Your task to perform on an android device: open chrome privacy settings Image 0: 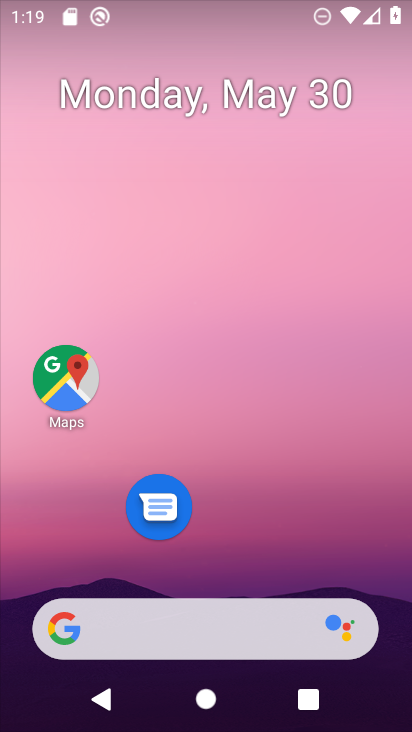
Step 0: drag from (217, 551) to (87, 59)
Your task to perform on an android device: open chrome privacy settings Image 1: 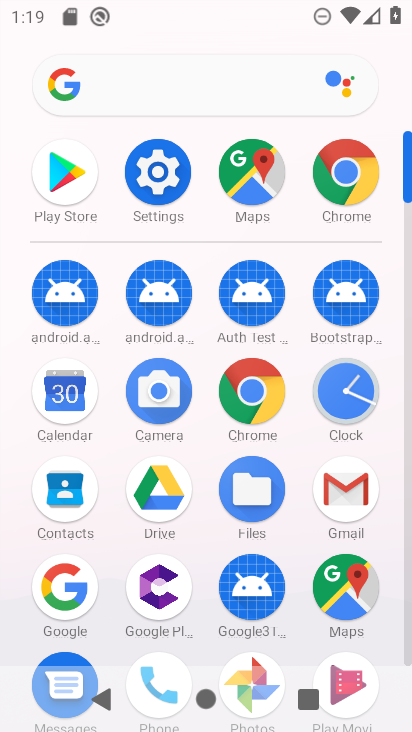
Step 1: click (407, 564)
Your task to perform on an android device: open chrome privacy settings Image 2: 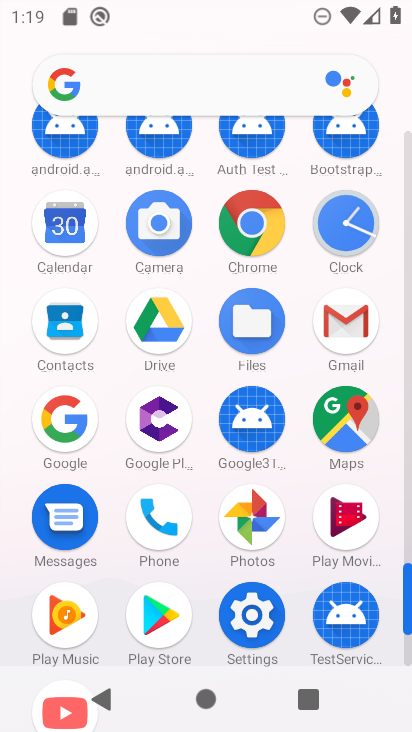
Step 2: drag from (407, 564) to (411, 727)
Your task to perform on an android device: open chrome privacy settings Image 3: 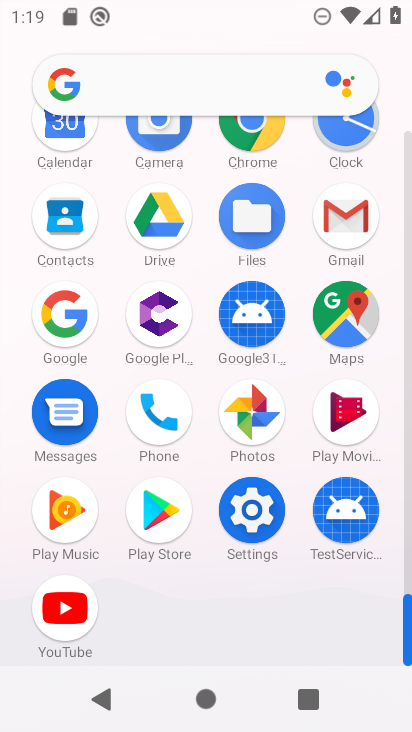
Step 3: click (254, 144)
Your task to perform on an android device: open chrome privacy settings Image 4: 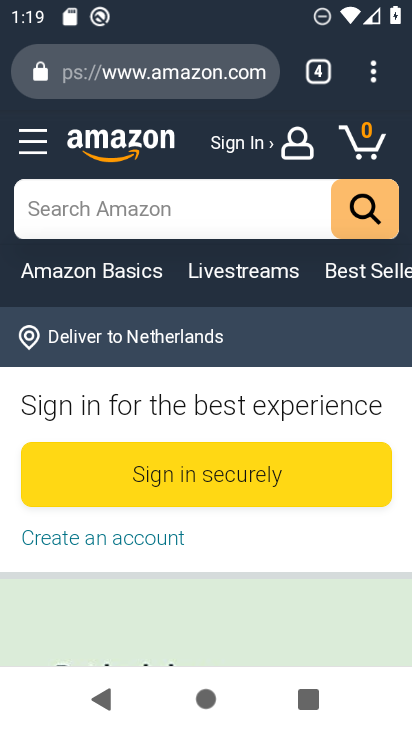
Step 4: drag from (385, 79) to (120, 480)
Your task to perform on an android device: open chrome privacy settings Image 5: 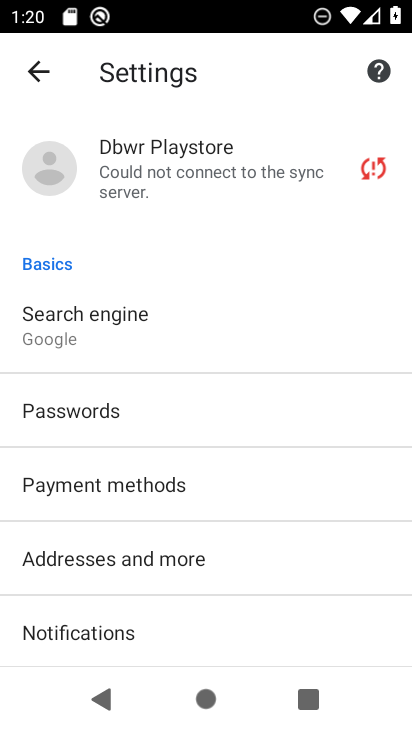
Step 5: drag from (158, 596) to (264, 115)
Your task to perform on an android device: open chrome privacy settings Image 6: 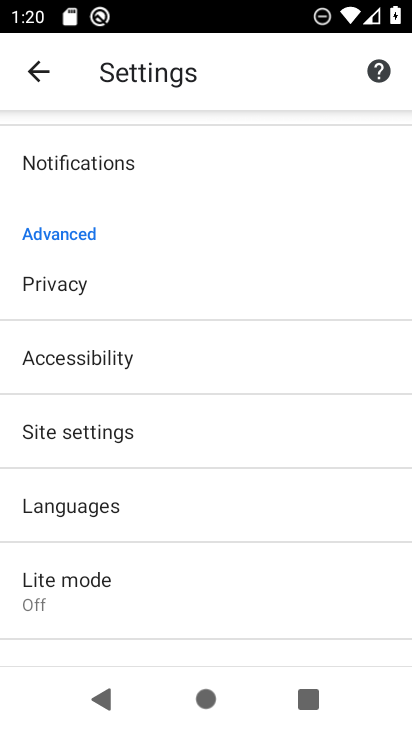
Step 6: click (220, 296)
Your task to perform on an android device: open chrome privacy settings Image 7: 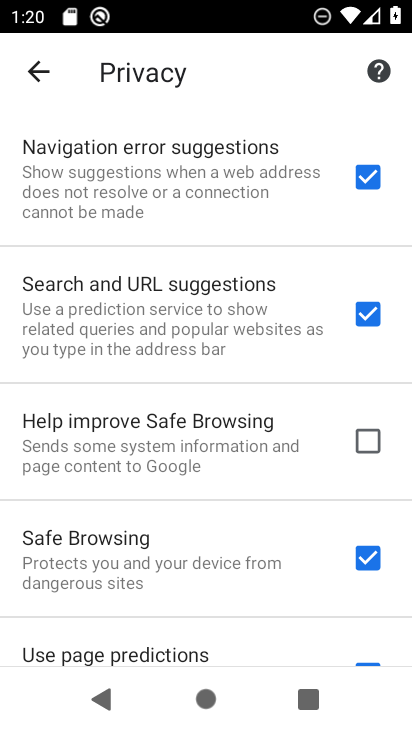
Step 7: task complete